Your task to perform on an android device: turn on data saver in the chrome app Image 0: 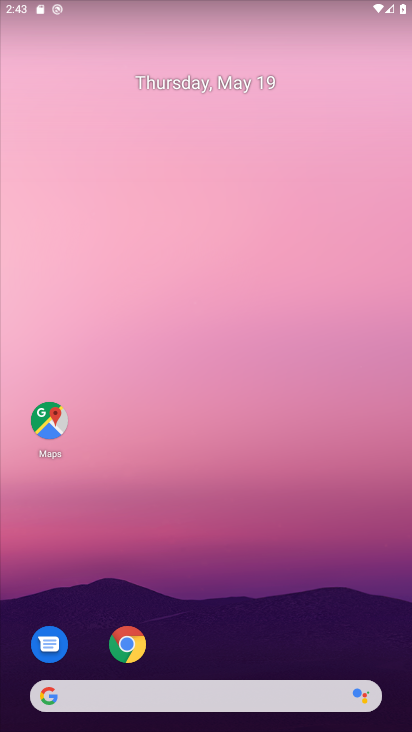
Step 0: drag from (293, 609) to (297, 200)
Your task to perform on an android device: turn on data saver in the chrome app Image 1: 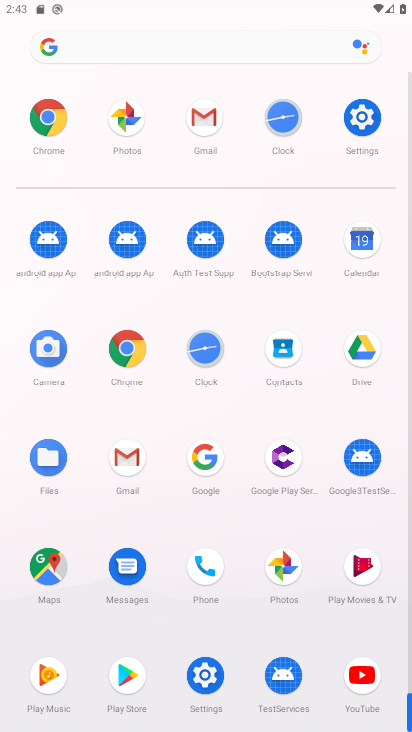
Step 1: click (130, 343)
Your task to perform on an android device: turn on data saver in the chrome app Image 2: 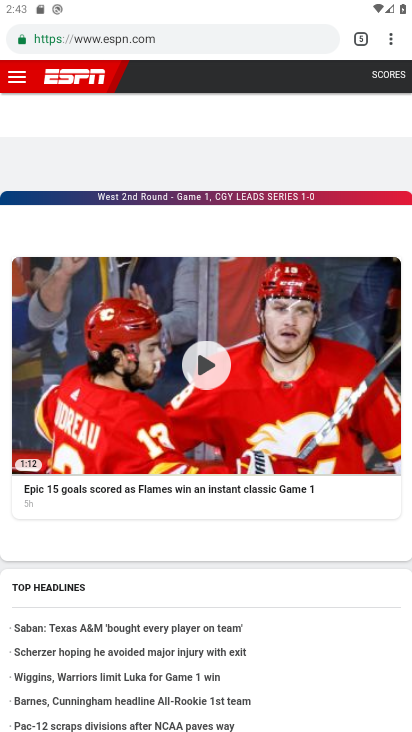
Step 2: click (402, 36)
Your task to perform on an android device: turn on data saver in the chrome app Image 3: 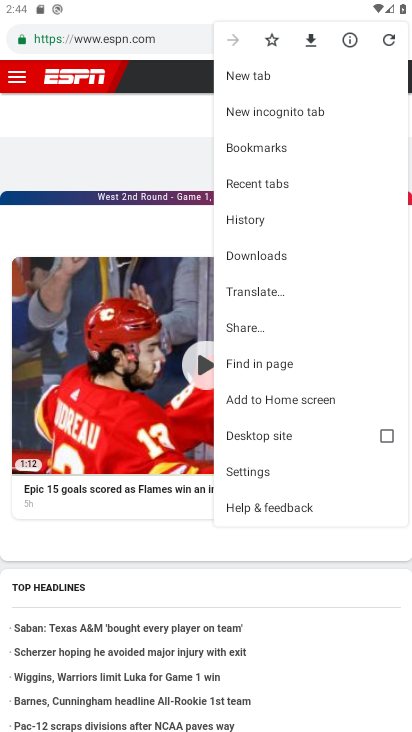
Step 3: click (270, 464)
Your task to perform on an android device: turn on data saver in the chrome app Image 4: 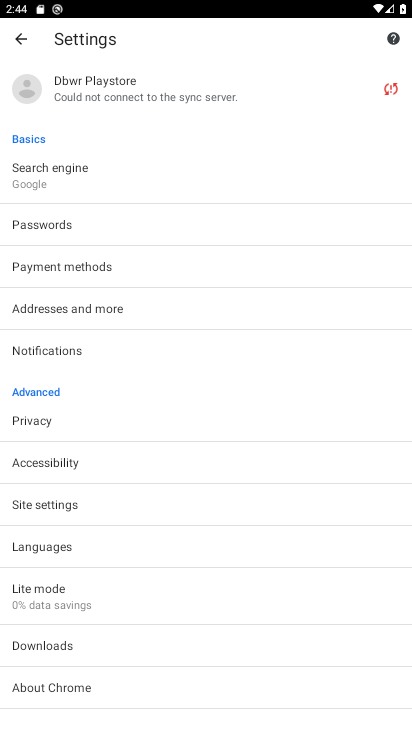
Step 4: click (143, 583)
Your task to perform on an android device: turn on data saver in the chrome app Image 5: 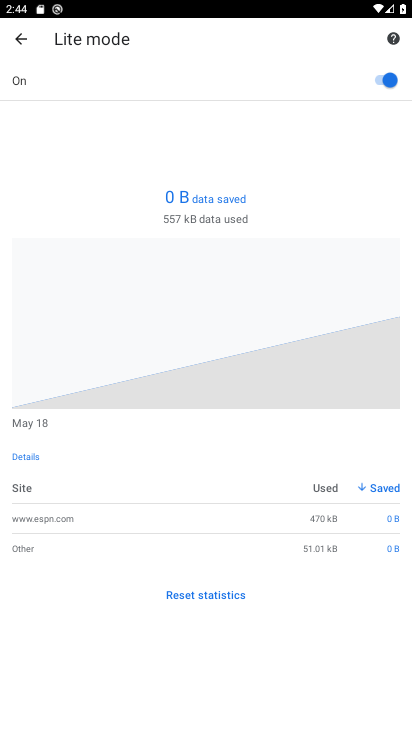
Step 5: task complete